Your task to perform on an android device: see tabs open on other devices in the chrome app Image 0: 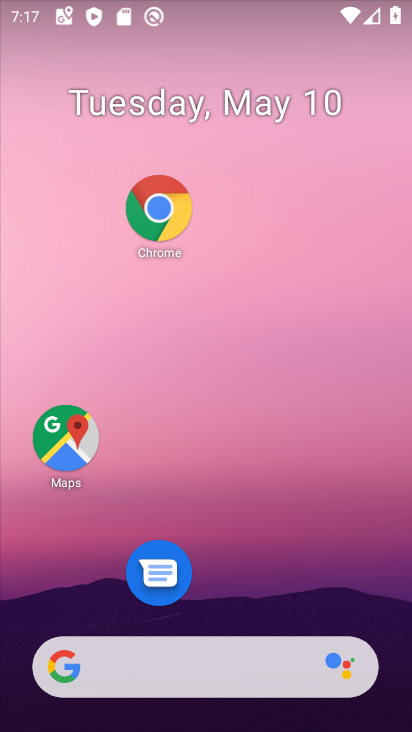
Step 0: drag from (270, 707) to (130, 312)
Your task to perform on an android device: see tabs open on other devices in the chrome app Image 1: 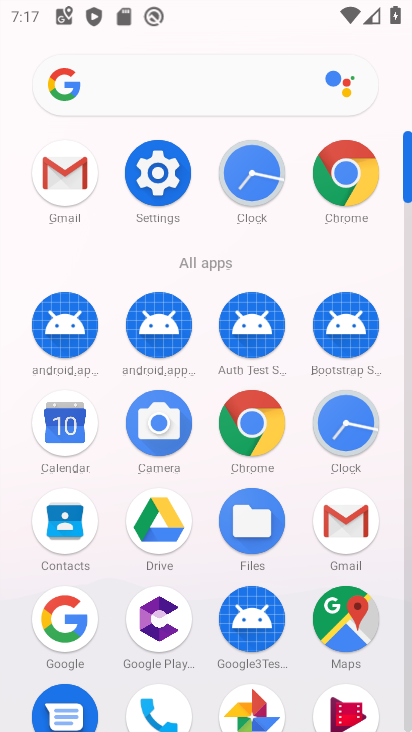
Step 1: click (324, 192)
Your task to perform on an android device: see tabs open on other devices in the chrome app Image 2: 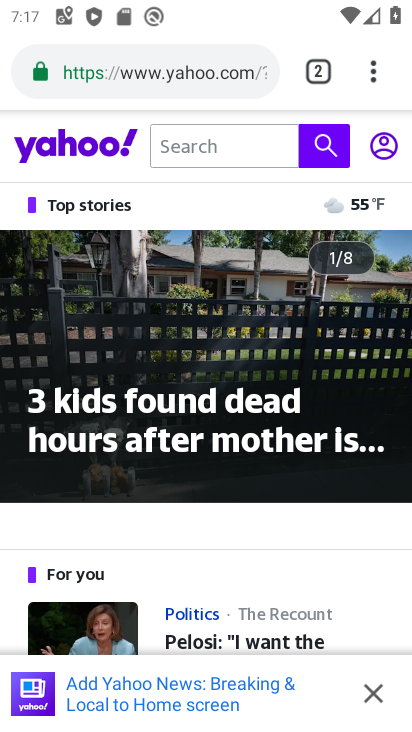
Step 2: click (318, 79)
Your task to perform on an android device: see tabs open on other devices in the chrome app Image 3: 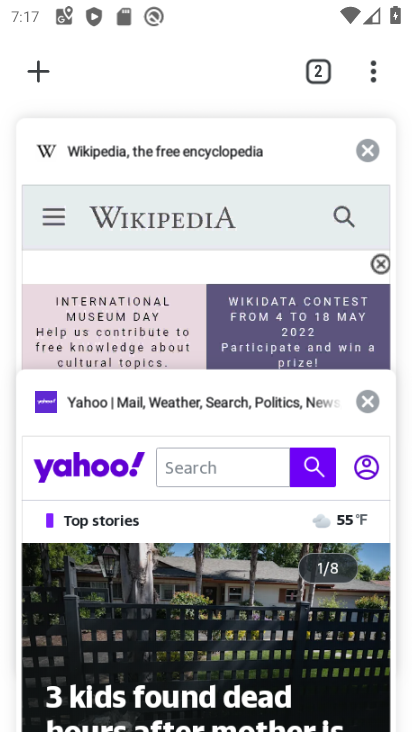
Step 3: click (47, 70)
Your task to perform on an android device: see tabs open on other devices in the chrome app Image 4: 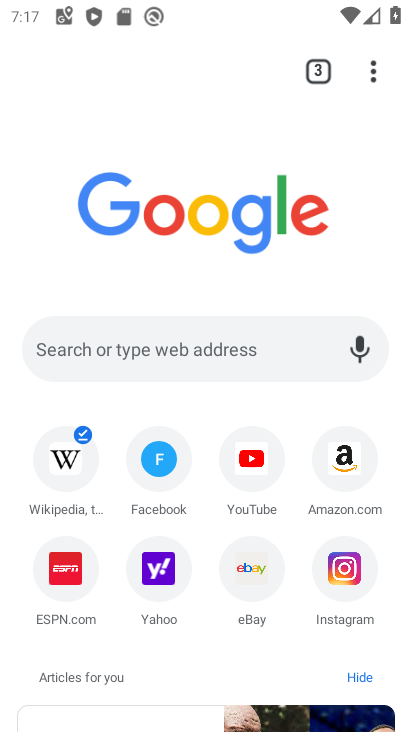
Step 4: task complete